Your task to perform on an android device: find which apps use the phone's location Image 0: 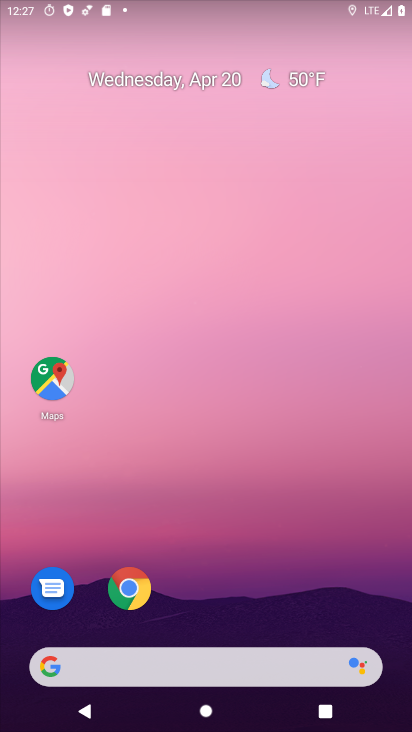
Step 0: drag from (203, 635) to (213, 23)
Your task to perform on an android device: find which apps use the phone's location Image 1: 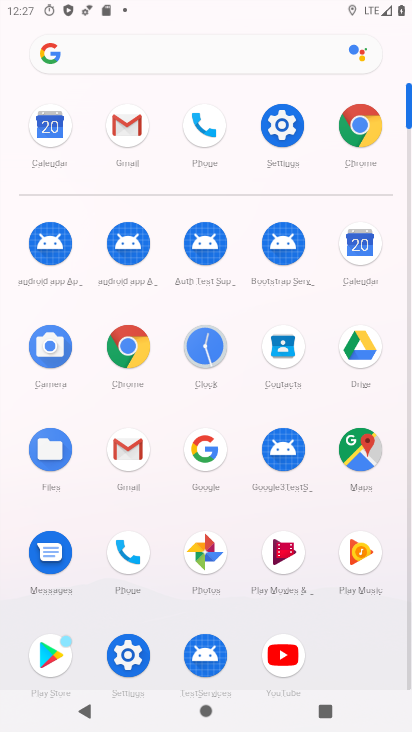
Step 1: click (286, 134)
Your task to perform on an android device: find which apps use the phone's location Image 2: 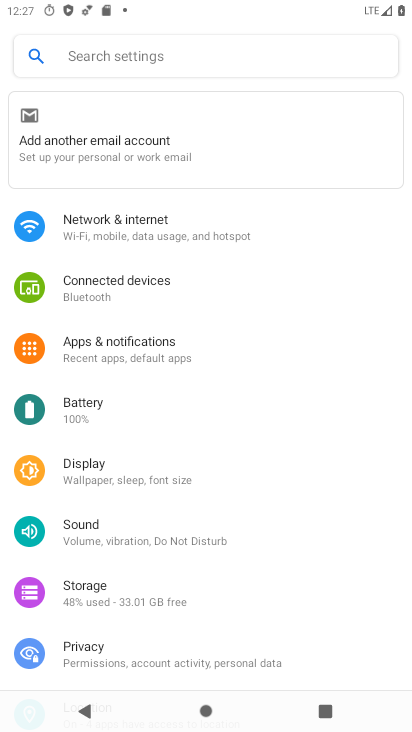
Step 2: drag from (131, 627) to (104, 218)
Your task to perform on an android device: find which apps use the phone's location Image 3: 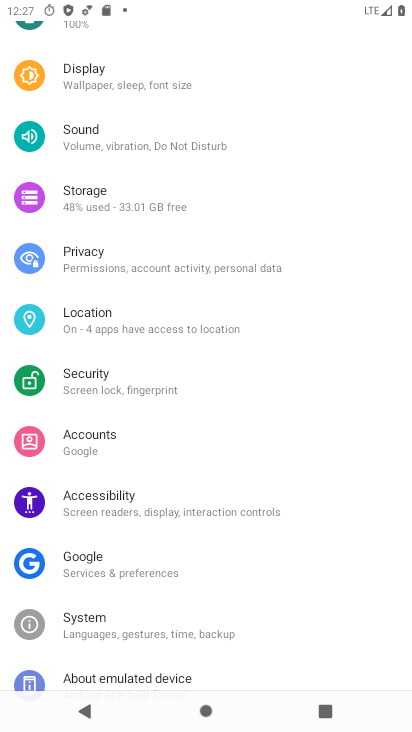
Step 3: click (109, 316)
Your task to perform on an android device: find which apps use the phone's location Image 4: 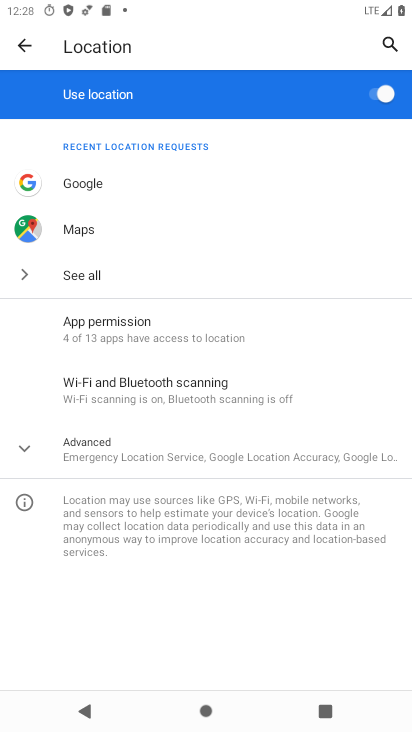
Step 4: click (96, 282)
Your task to perform on an android device: find which apps use the phone's location Image 5: 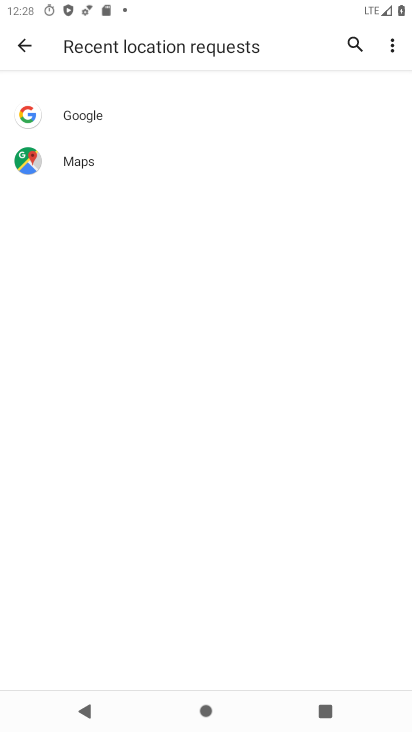
Step 5: task complete